Your task to perform on an android device: Search for vegetarian restaurants on Maps Image 0: 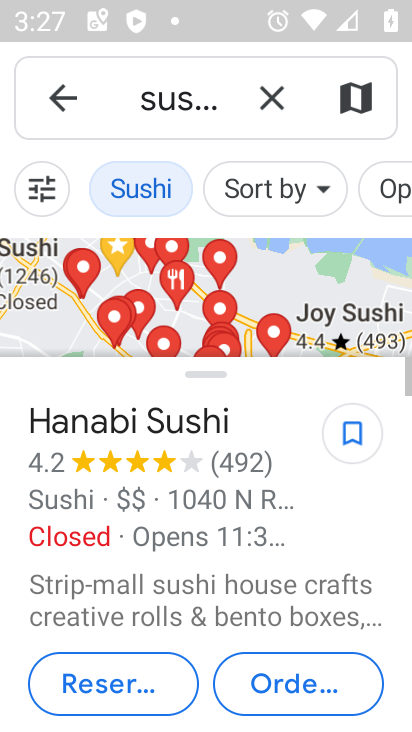
Step 0: press home button
Your task to perform on an android device: Search for vegetarian restaurants on Maps Image 1: 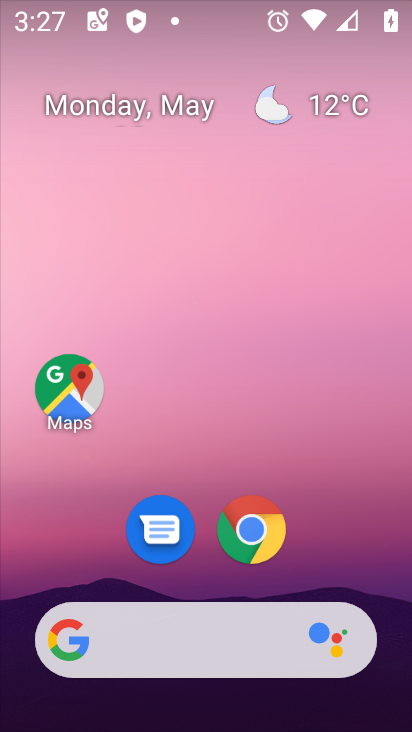
Step 1: drag from (317, 587) to (311, 92)
Your task to perform on an android device: Search for vegetarian restaurants on Maps Image 2: 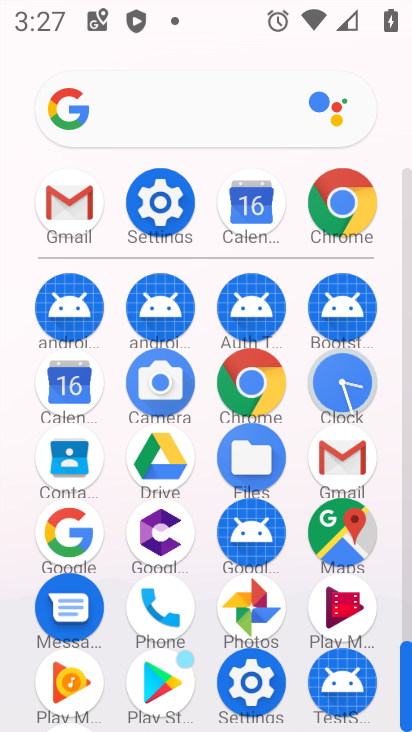
Step 2: click (325, 529)
Your task to perform on an android device: Search for vegetarian restaurants on Maps Image 3: 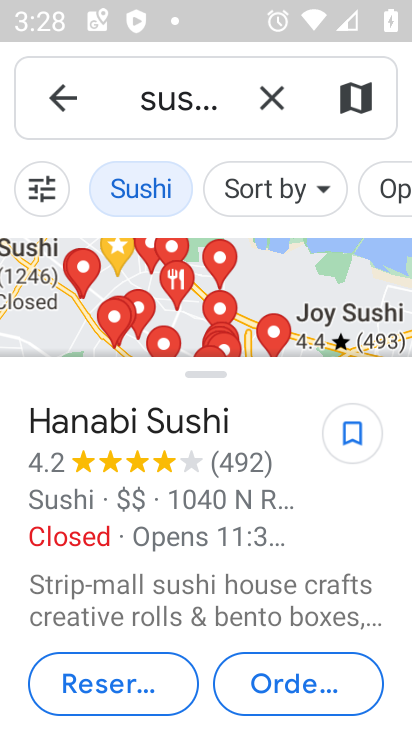
Step 3: click (267, 98)
Your task to perform on an android device: Search for vegetarian restaurants on Maps Image 4: 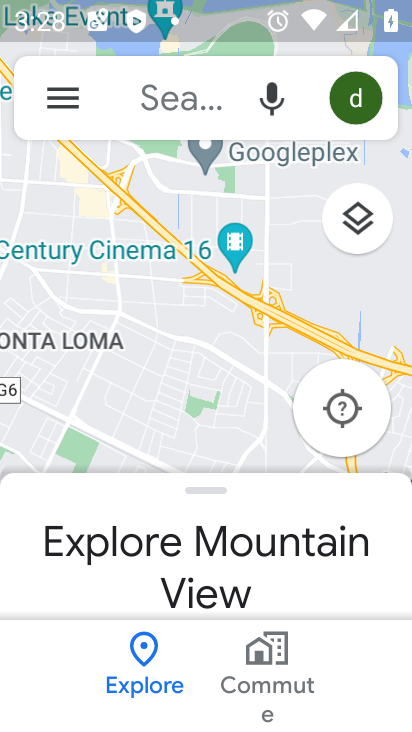
Step 4: click (156, 102)
Your task to perform on an android device: Search for vegetarian restaurants on Maps Image 5: 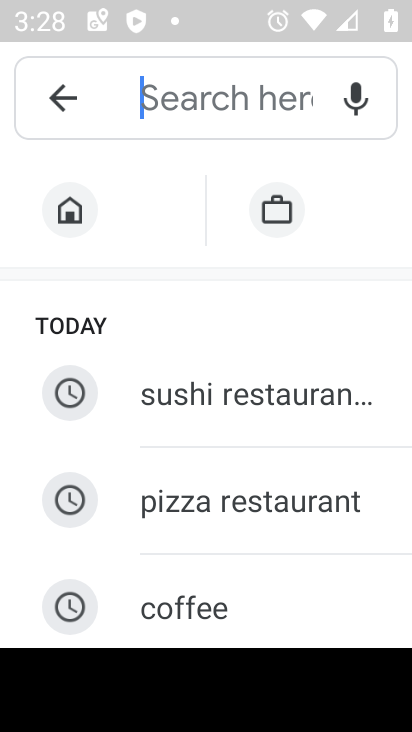
Step 5: type "vegetarian restaurants"
Your task to perform on an android device: Search for vegetarian restaurants on Maps Image 6: 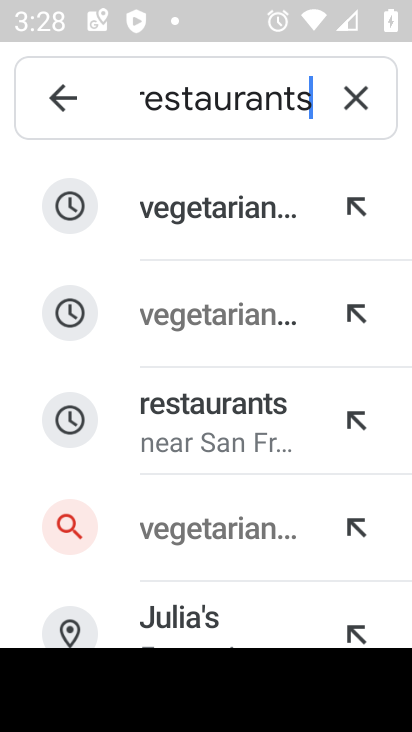
Step 6: click (144, 205)
Your task to perform on an android device: Search for vegetarian restaurants on Maps Image 7: 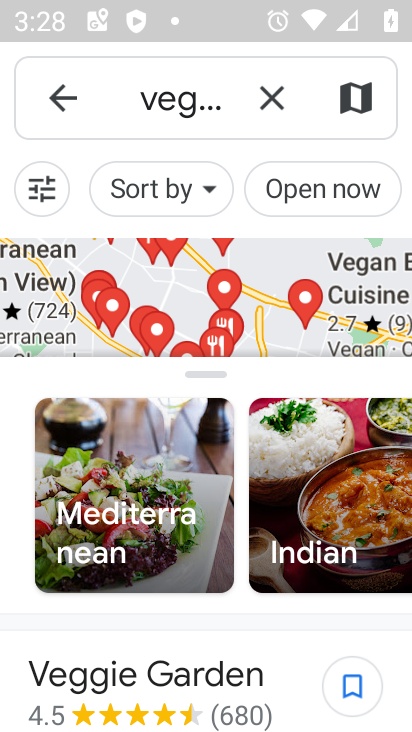
Step 7: task complete